Your task to perform on an android device: Show the shopping cart on costco.com. Add macbook pro 15 inch to the cart on costco.com Image 0: 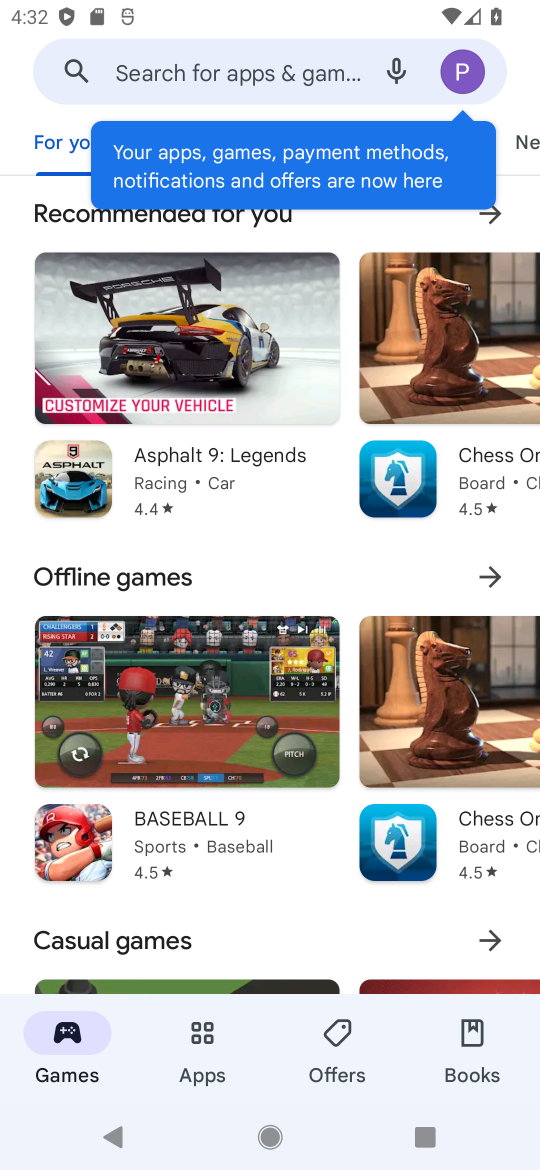
Step 0: press home button
Your task to perform on an android device: Show the shopping cart on costco.com. Add macbook pro 15 inch to the cart on costco.com Image 1: 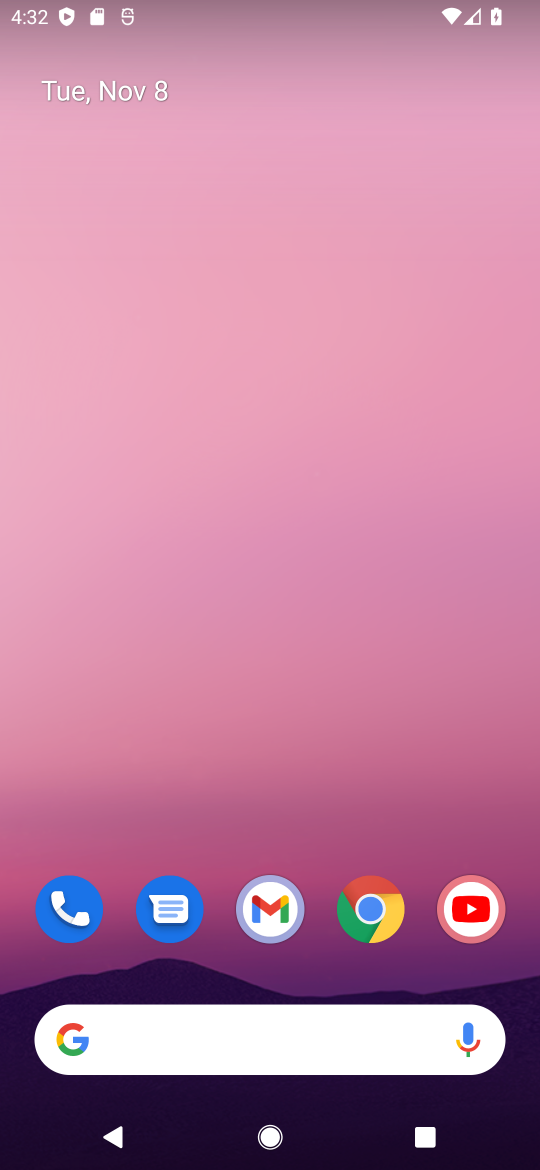
Step 1: click (362, 898)
Your task to perform on an android device: Show the shopping cart on costco.com. Add macbook pro 15 inch to the cart on costco.com Image 2: 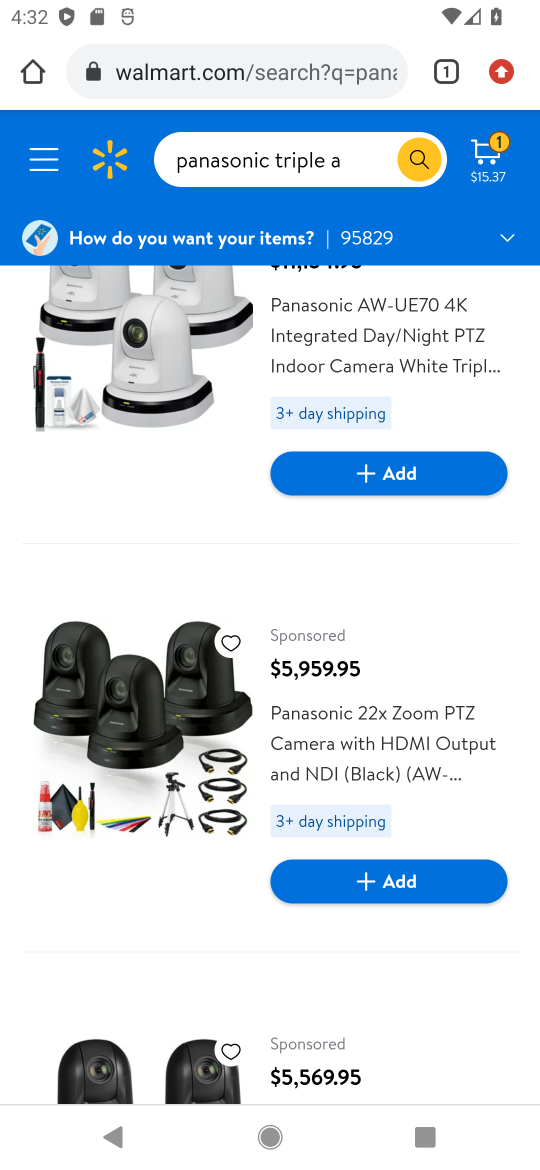
Step 2: click (300, 67)
Your task to perform on an android device: Show the shopping cart on costco.com. Add macbook pro 15 inch to the cart on costco.com Image 3: 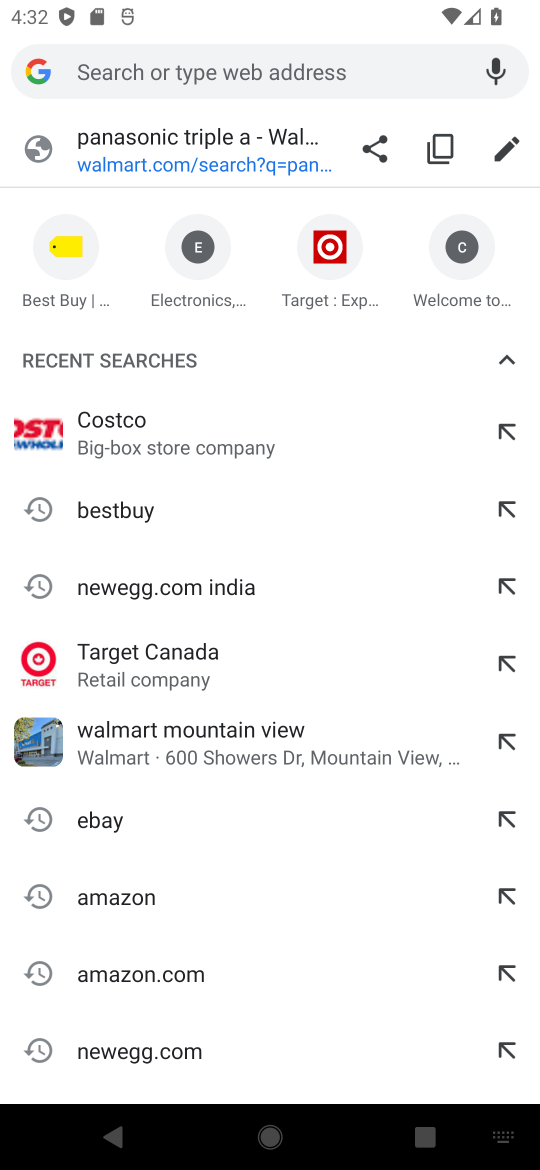
Step 3: click (106, 415)
Your task to perform on an android device: Show the shopping cart on costco.com. Add macbook pro 15 inch to the cart on costco.com Image 4: 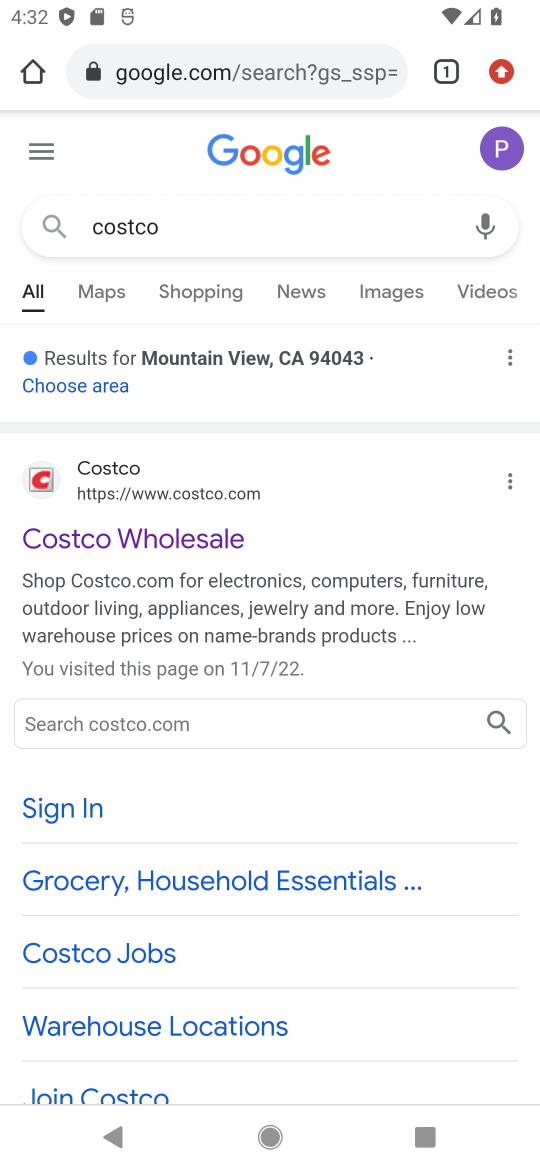
Step 4: click (200, 540)
Your task to perform on an android device: Show the shopping cart on costco.com. Add macbook pro 15 inch to the cart on costco.com Image 5: 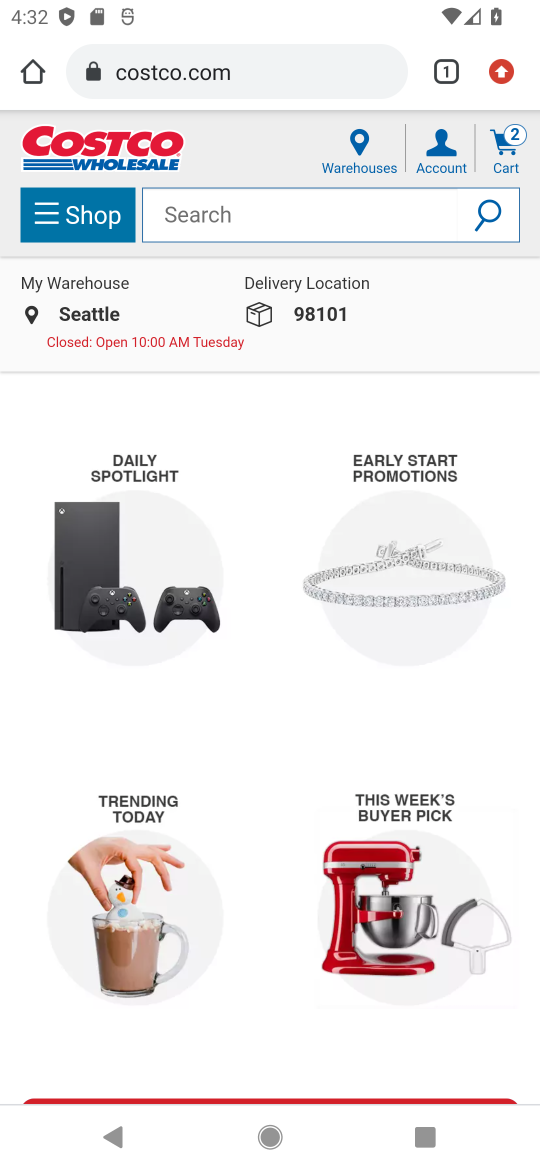
Step 5: click (316, 217)
Your task to perform on an android device: Show the shopping cart on costco.com. Add macbook pro 15 inch to the cart on costco.com Image 6: 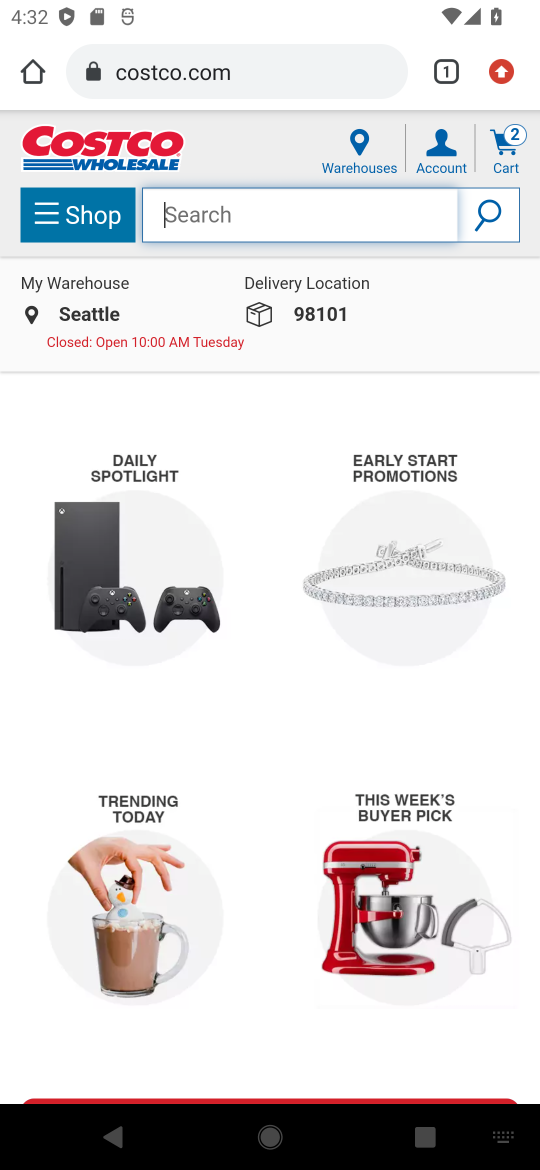
Step 6: type "macbook pro 15 inch"
Your task to perform on an android device: Show the shopping cart on costco.com. Add macbook pro 15 inch to the cart on costco.com Image 7: 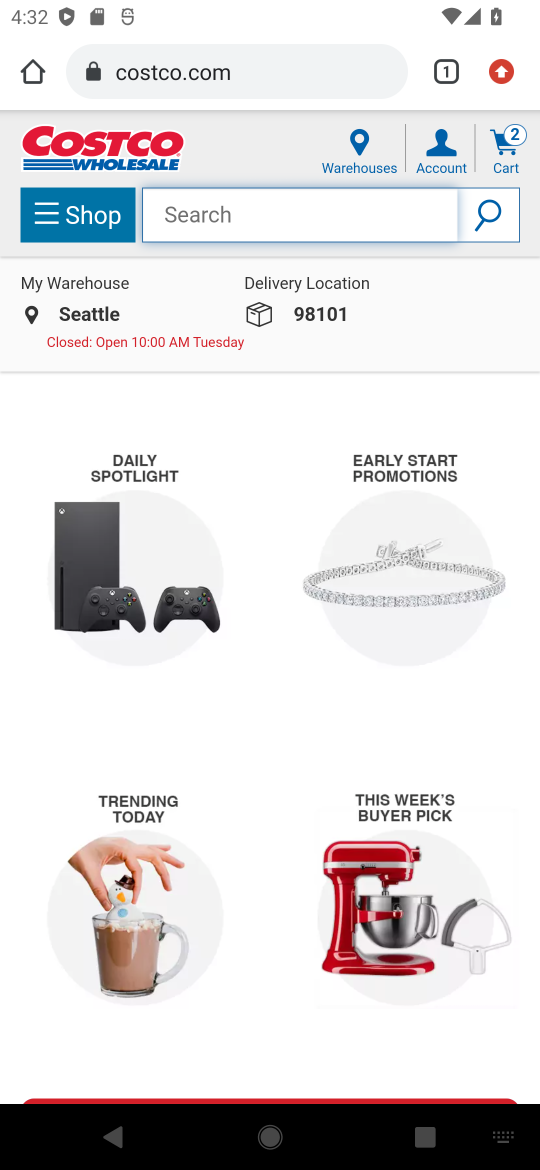
Step 7: press enter
Your task to perform on an android device: Show the shopping cart on costco.com. Add macbook pro 15 inch to the cart on costco.com Image 8: 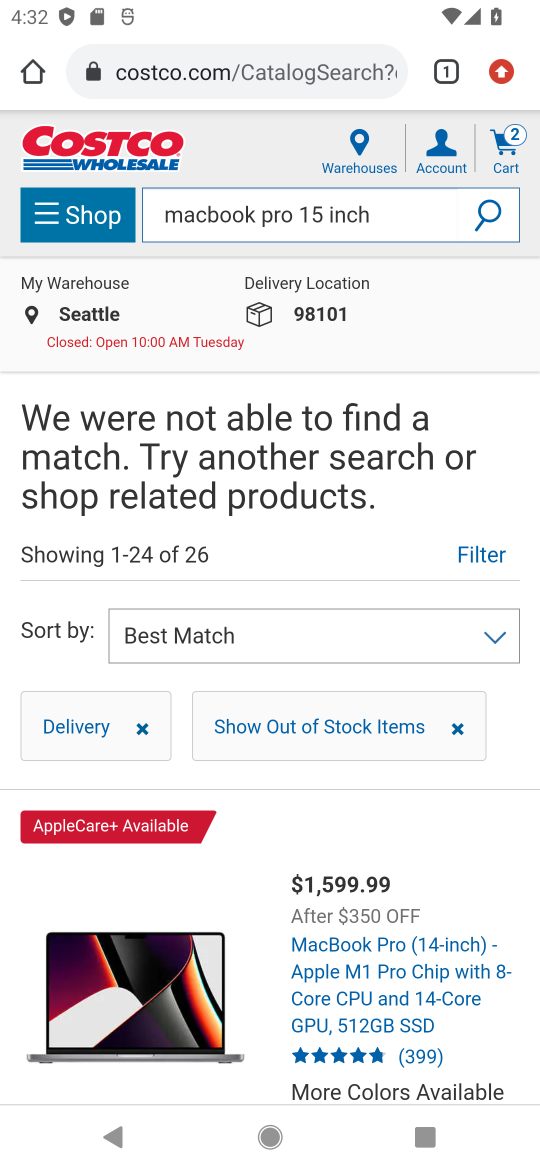
Step 8: task complete